Your task to perform on an android device: change notifications settings Image 0: 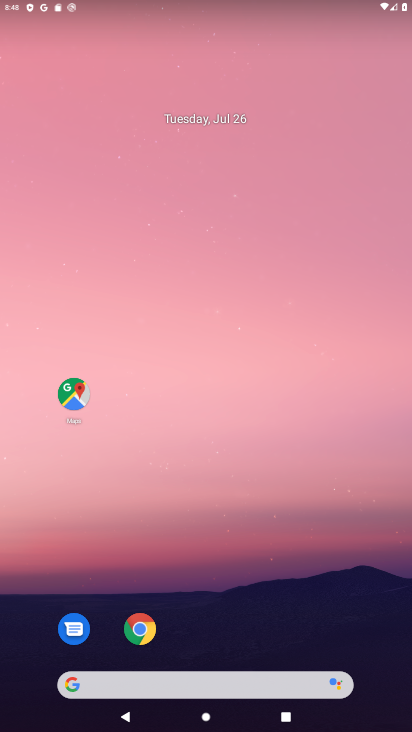
Step 0: press home button
Your task to perform on an android device: change notifications settings Image 1: 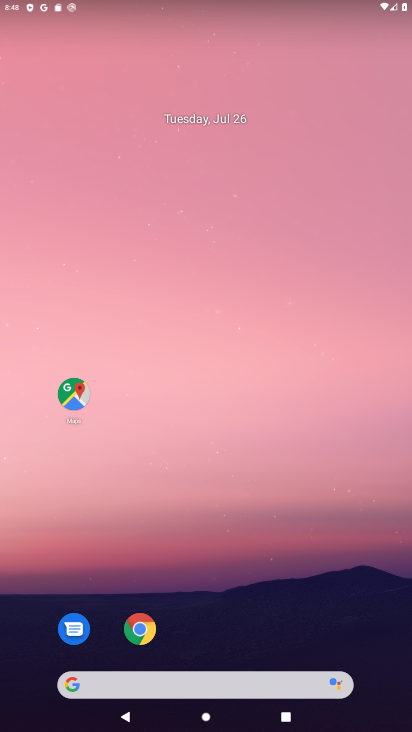
Step 1: drag from (251, 540) to (282, 235)
Your task to perform on an android device: change notifications settings Image 2: 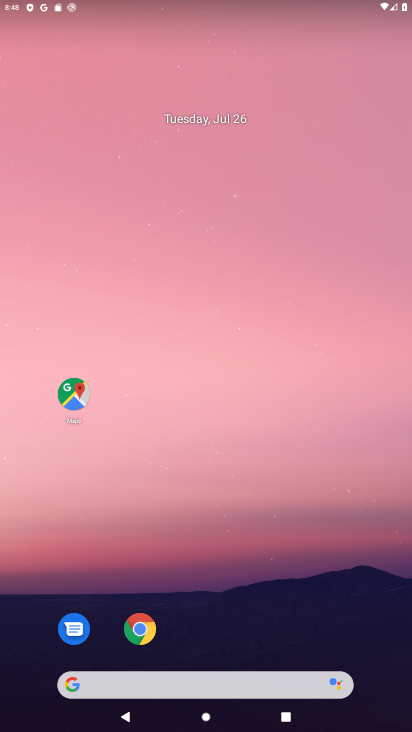
Step 2: drag from (256, 663) to (256, 109)
Your task to perform on an android device: change notifications settings Image 3: 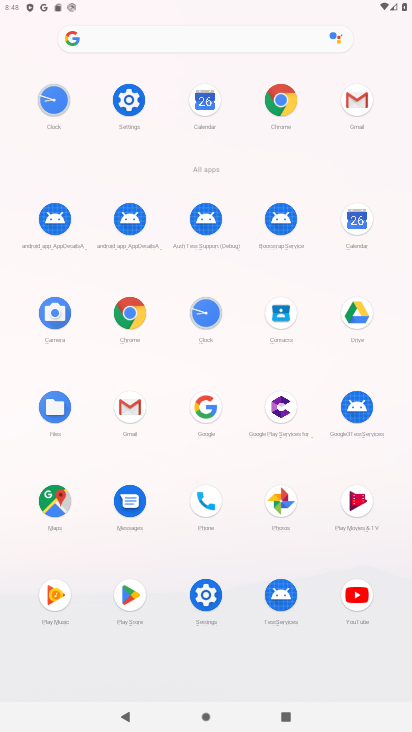
Step 3: click (140, 110)
Your task to perform on an android device: change notifications settings Image 4: 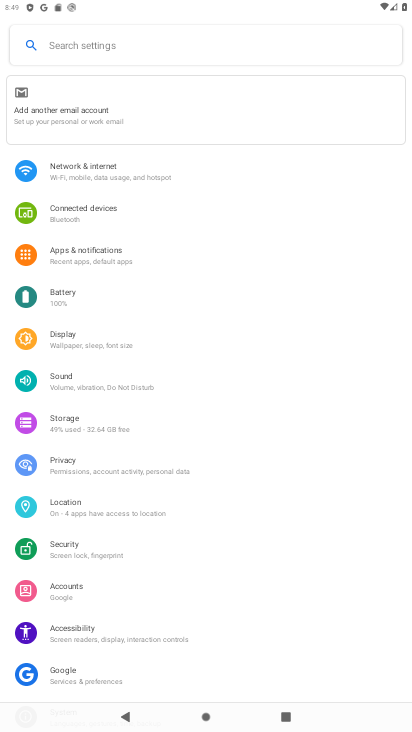
Step 4: click (31, 262)
Your task to perform on an android device: change notifications settings Image 5: 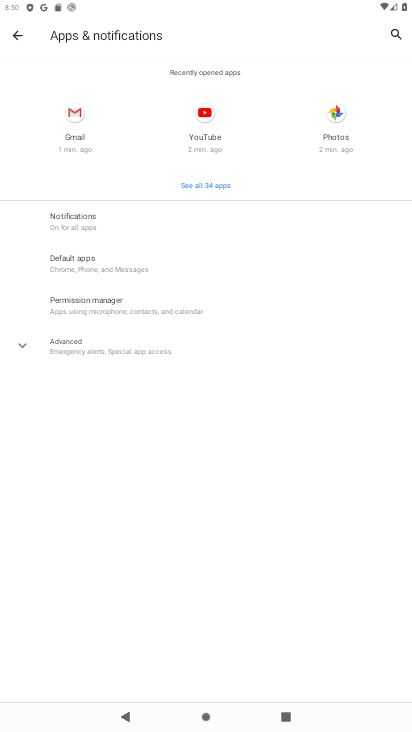
Step 5: click (96, 230)
Your task to perform on an android device: change notifications settings Image 6: 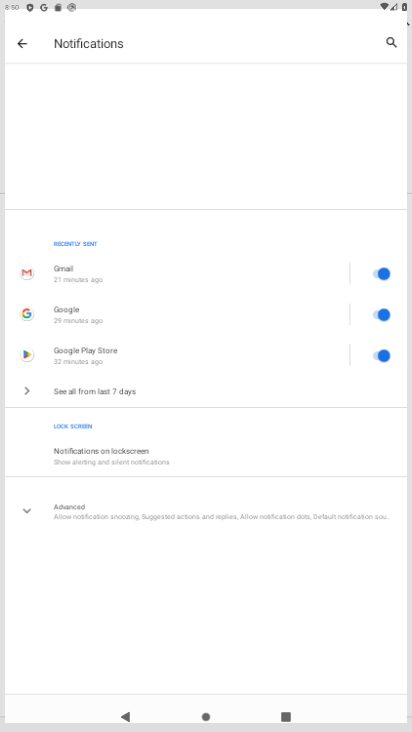
Step 6: task complete